Your task to perform on an android device: Open battery settings Image 0: 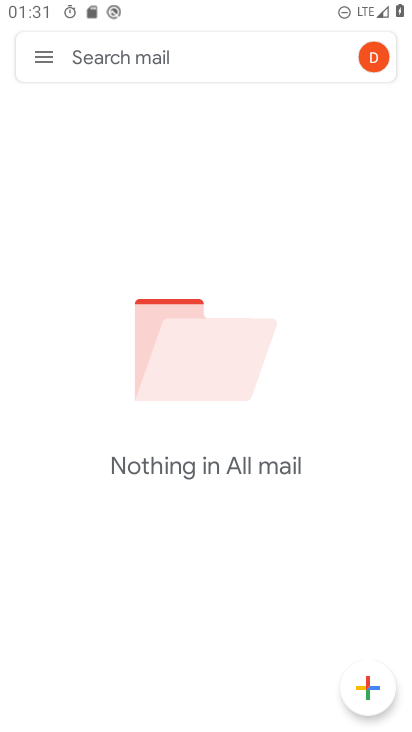
Step 0: press home button
Your task to perform on an android device: Open battery settings Image 1: 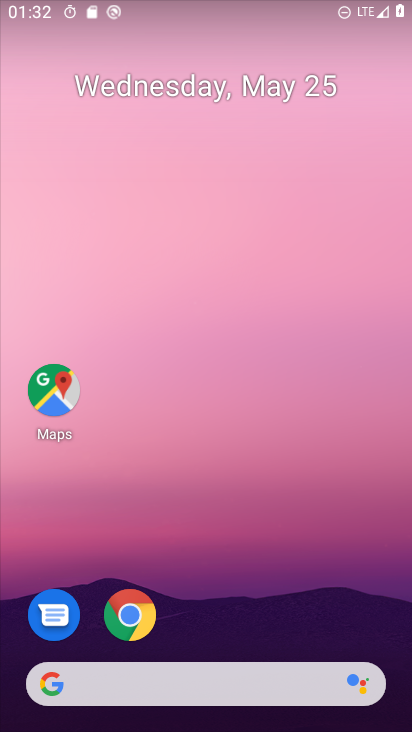
Step 1: drag from (227, 687) to (158, 226)
Your task to perform on an android device: Open battery settings Image 2: 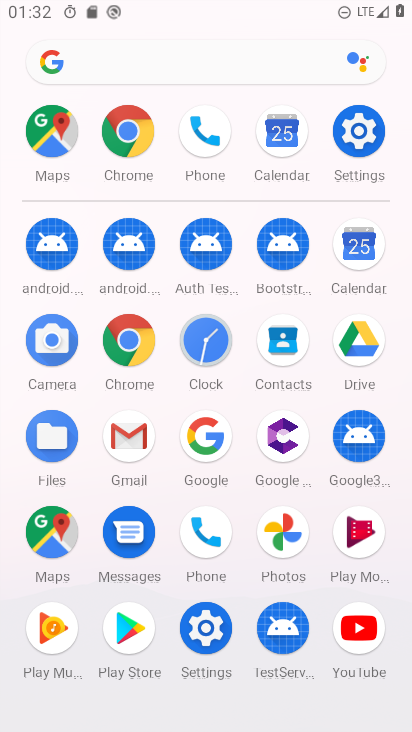
Step 2: click (354, 140)
Your task to perform on an android device: Open battery settings Image 3: 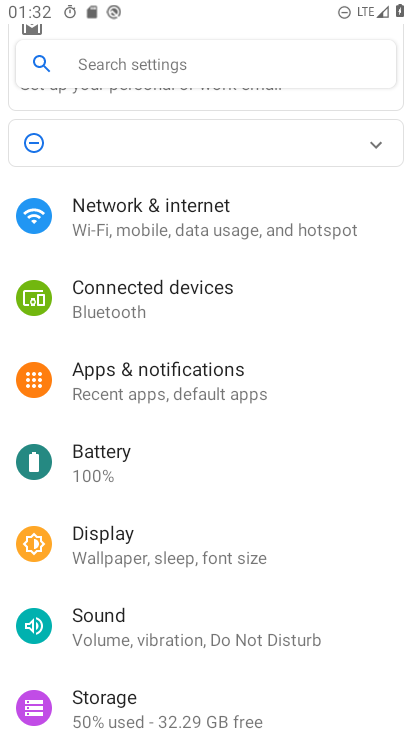
Step 3: click (160, 454)
Your task to perform on an android device: Open battery settings Image 4: 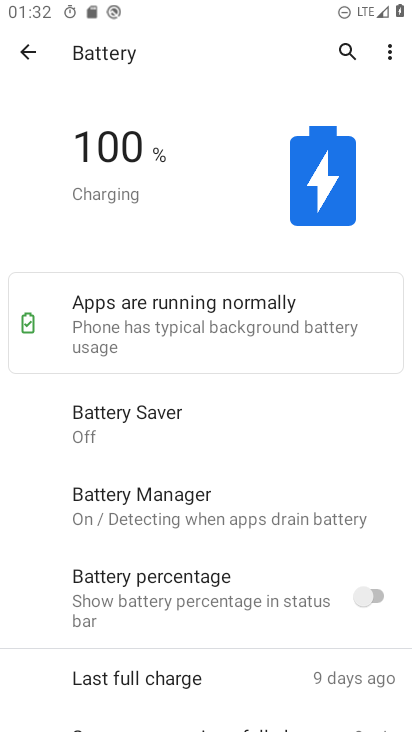
Step 4: task complete